Your task to perform on an android device: change keyboard looks Image 0: 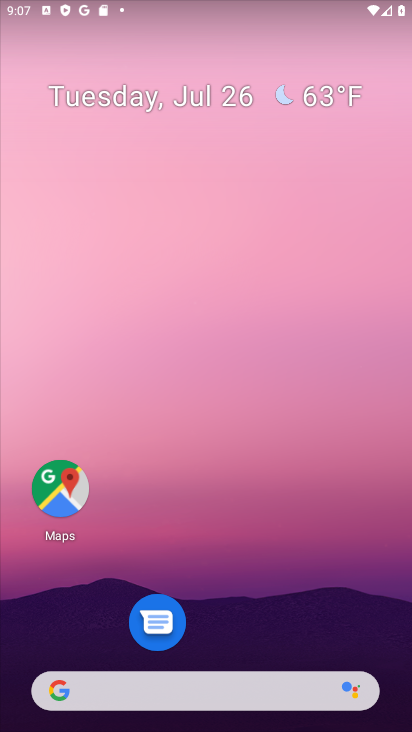
Step 0: drag from (259, 630) to (120, 179)
Your task to perform on an android device: change keyboard looks Image 1: 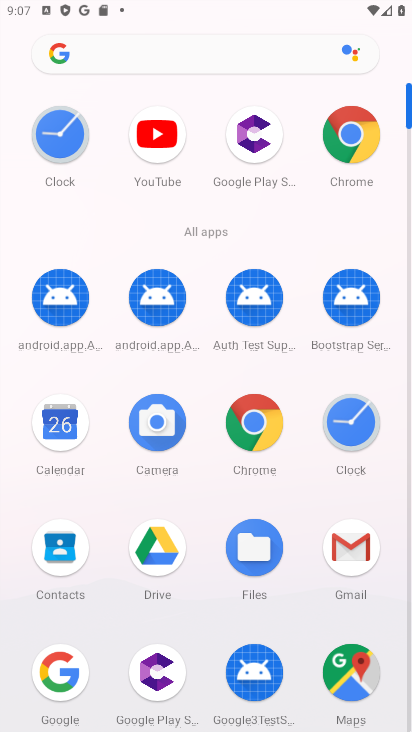
Step 1: drag from (373, 494) to (337, 269)
Your task to perform on an android device: change keyboard looks Image 2: 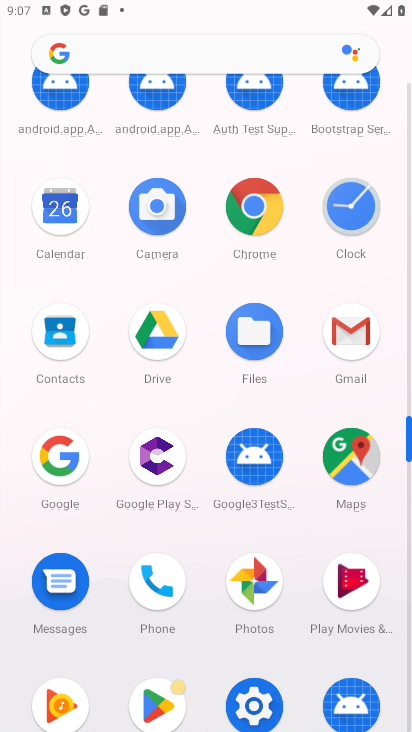
Step 2: click (262, 705)
Your task to perform on an android device: change keyboard looks Image 3: 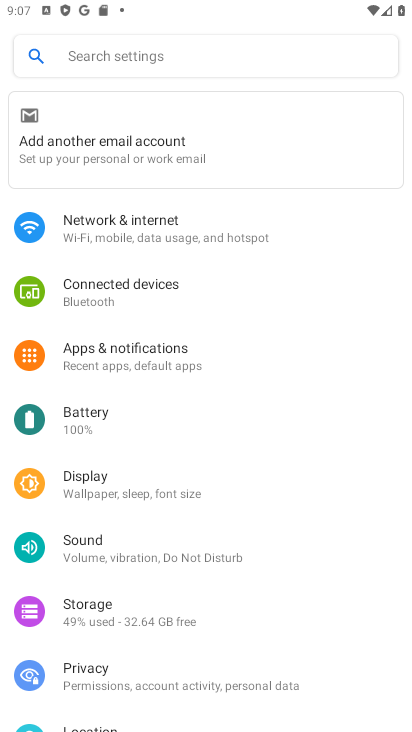
Step 3: drag from (276, 642) to (257, 303)
Your task to perform on an android device: change keyboard looks Image 4: 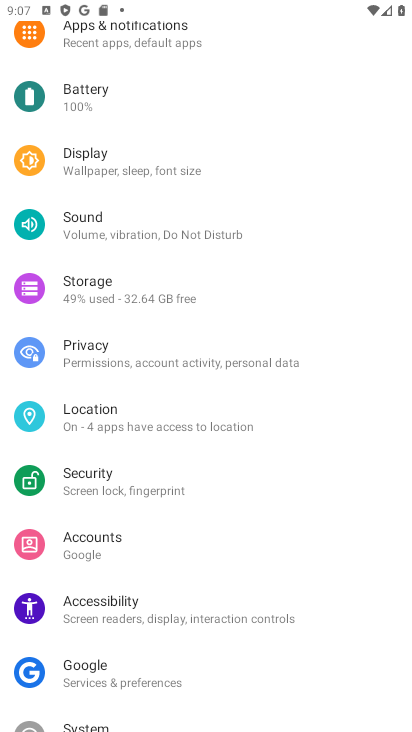
Step 4: drag from (225, 676) to (315, 228)
Your task to perform on an android device: change keyboard looks Image 5: 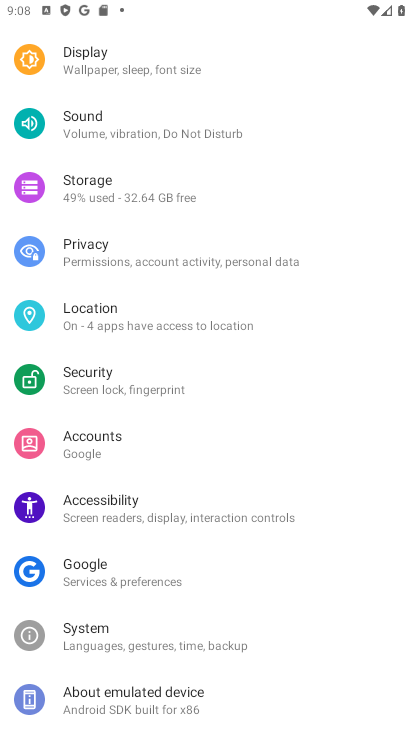
Step 5: click (185, 648)
Your task to perform on an android device: change keyboard looks Image 6: 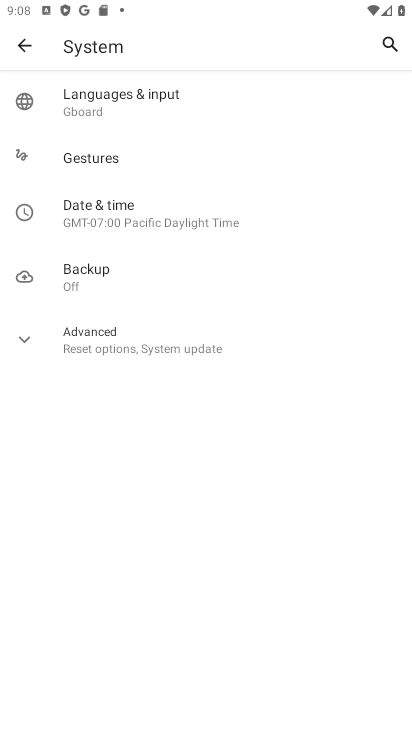
Step 6: click (106, 116)
Your task to perform on an android device: change keyboard looks Image 7: 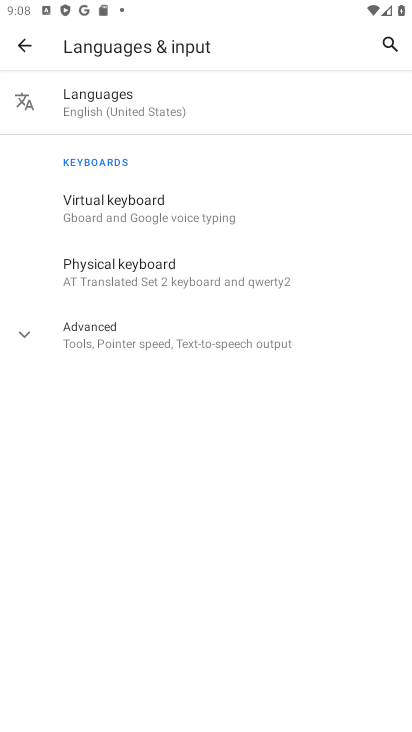
Step 7: click (158, 194)
Your task to perform on an android device: change keyboard looks Image 8: 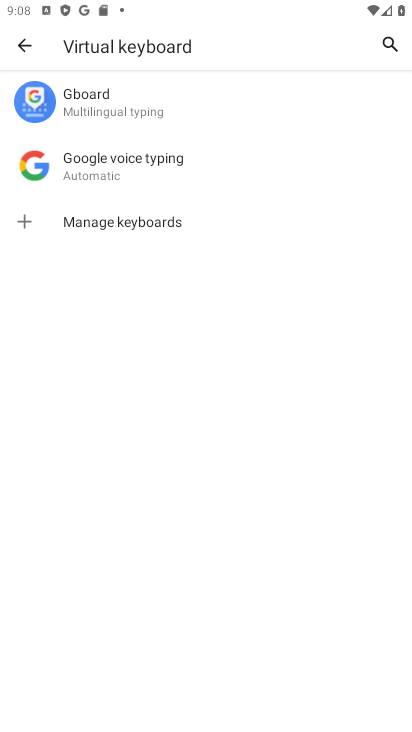
Step 8: click (114, 110)
Your task to perform on an android device: change keyboard looks Image 9: 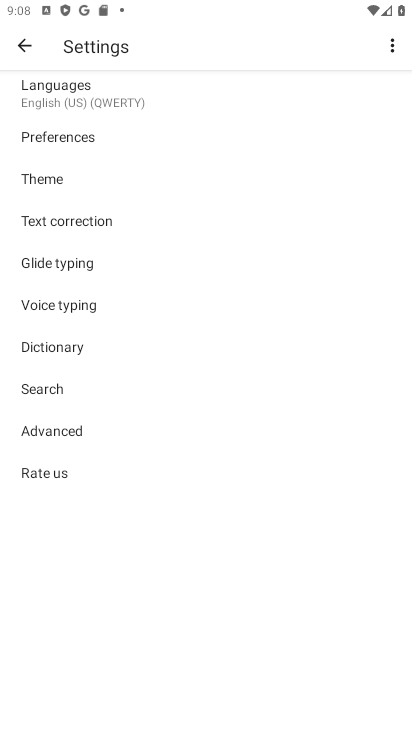
Step 9: click (91, 179)
Your task to perform on an android device: change keyboard looks Image 10: 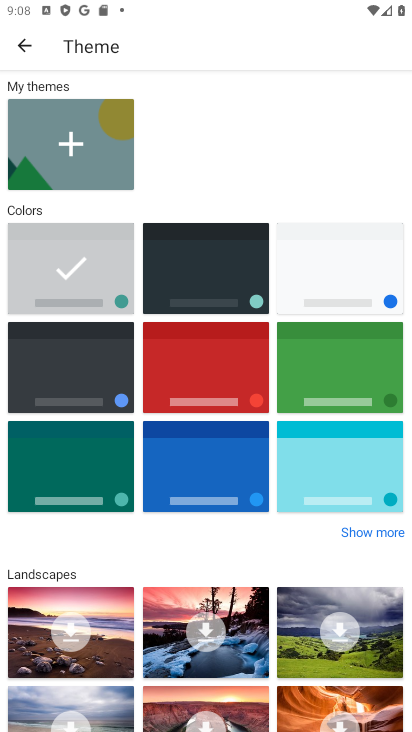
Step 10: click (200, 276)
Your task to perform on an android device: change keyboard looks Image 11: 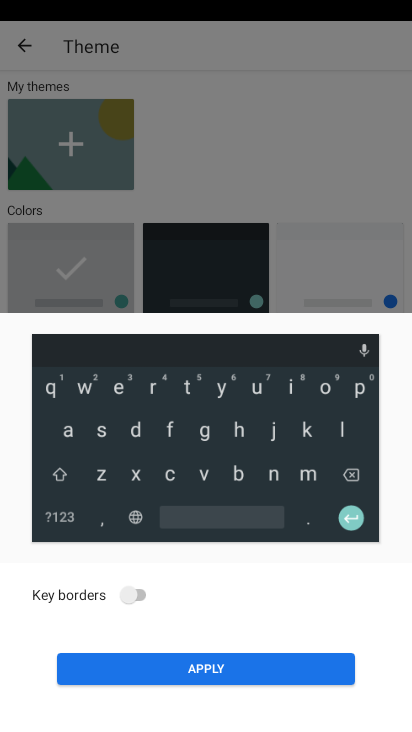
Step 11: click (211, 671)
Your task to perform on an android device: change keyboard looks Image 12: 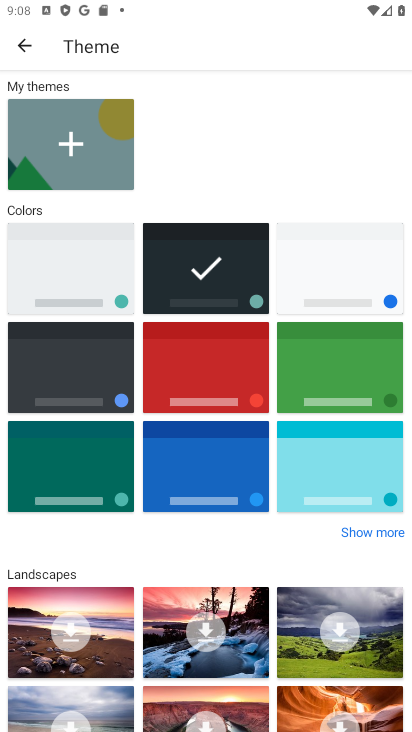
Step 12: task complete